Your task to perform on an android device: Go to settings Image 0: 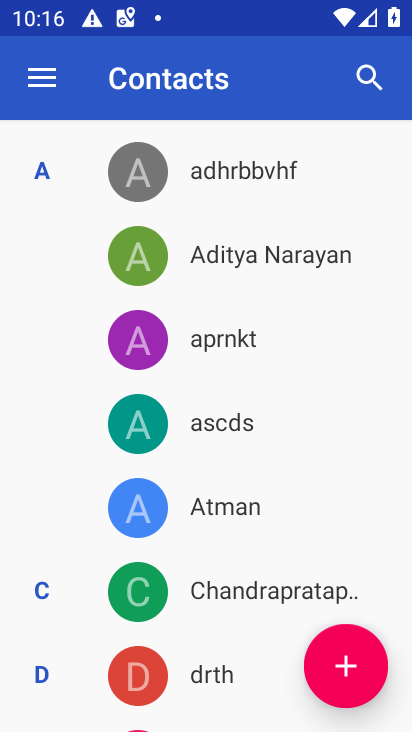
Step 0: press home button
Your task to perform on an android device: Go to settings Image 1: 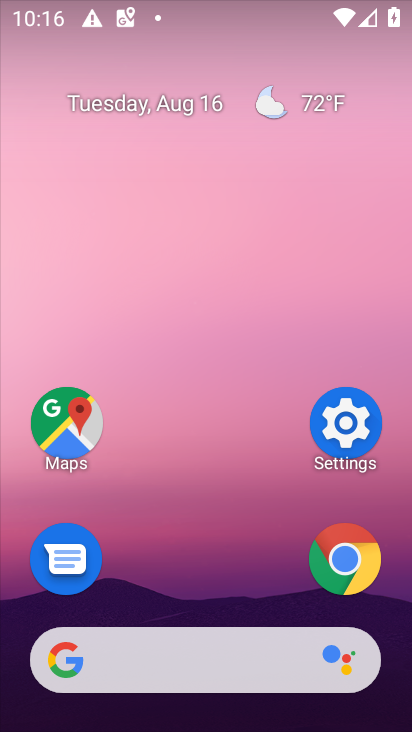
Step 1: click (355, 419)
Your task to perform on an android device: Go to settings Image 2: 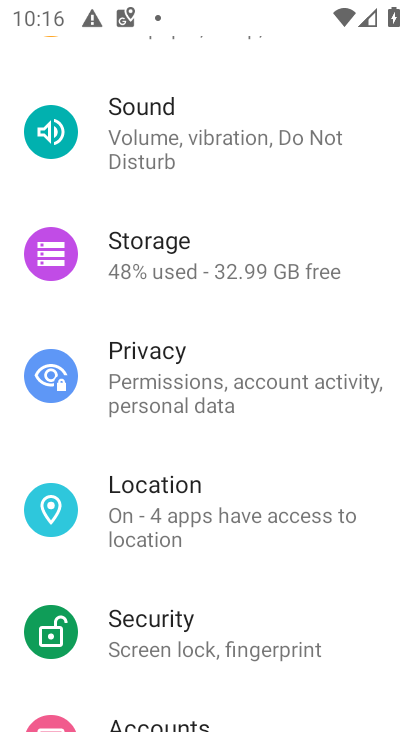
Step 2: task complete